Your task to perform on an android device: Go to Reddit.com Image 0: 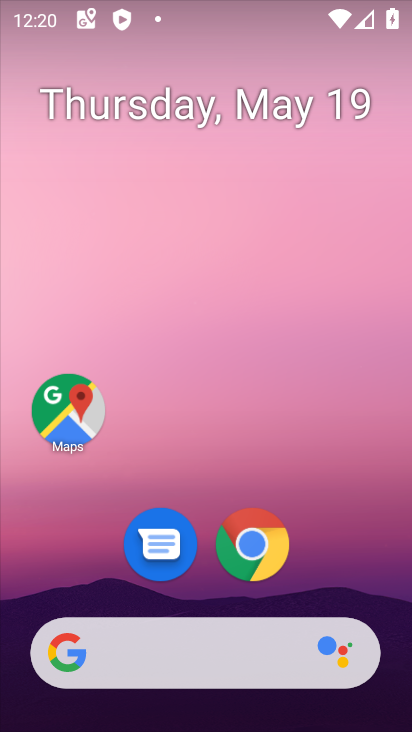
Step 0: drag from (302, 647) to (331, 92)
Your task to perform on an android device: Go to Reddit.com Image 1: 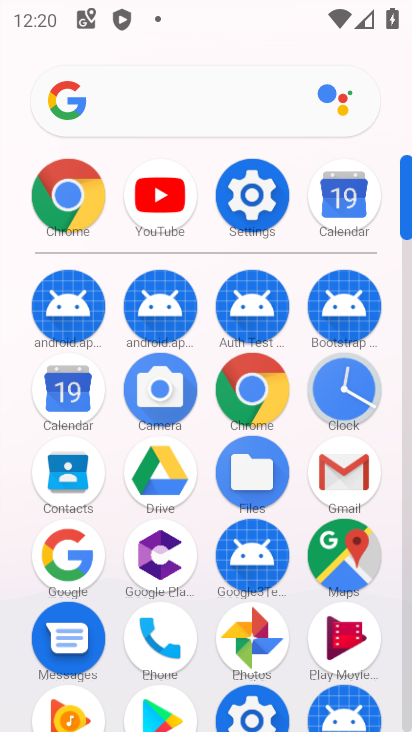
Step 1: click (251, 386)
Your task to perform on an android device: Go to Reddit.com Image 2: 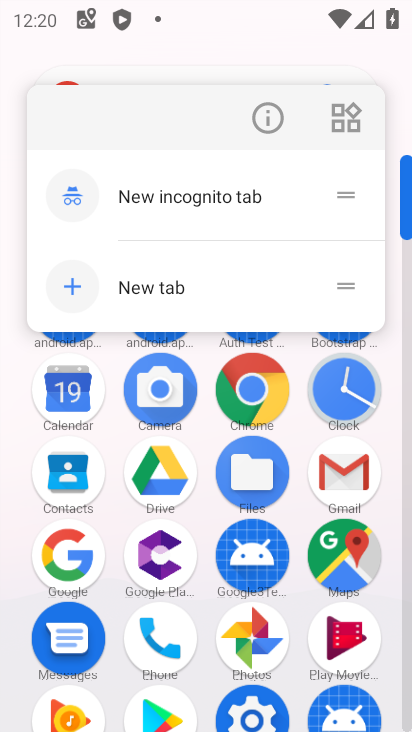
Step 2: click (268, 387)
Your task to perform on an android device: Go to Reddit.com Image 3: 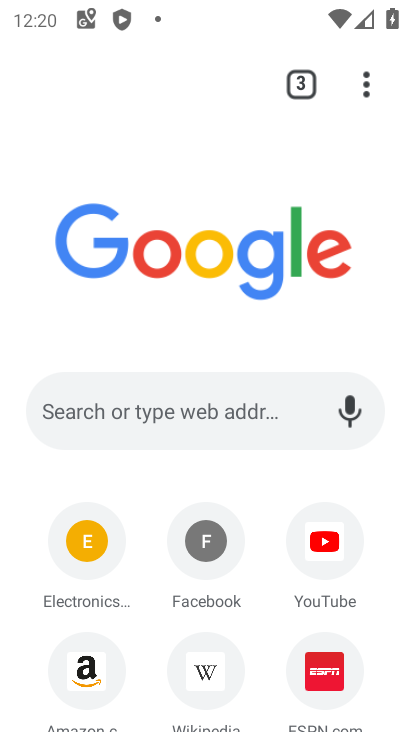
Step 3: drag from (373, 642) to (408, 337)
Your task to perform on an android device: Go to Reddit.com Image 4: 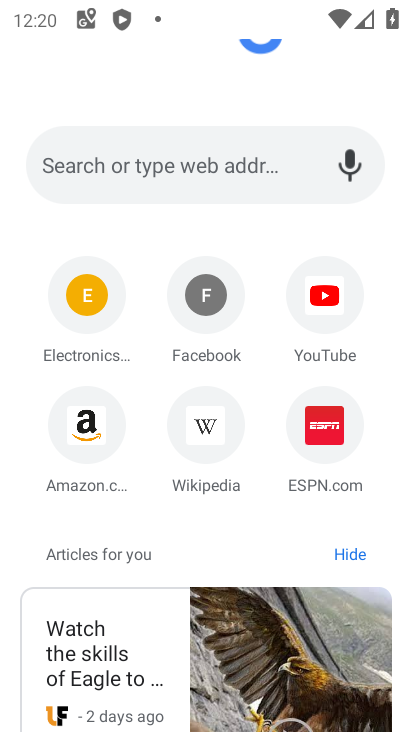
Step 4: click (265, 321)
Your task to perform on an android device: Go to Reddit.com Image 5: 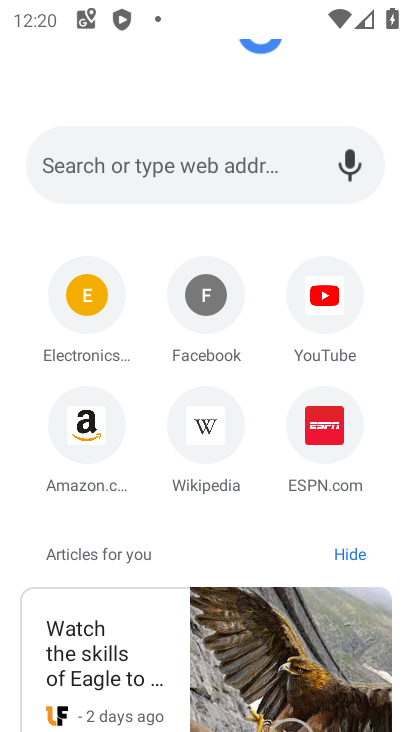
Step 5: click (191, 156)
Your task to perform on an android device: Go to Reddit.com Image 6: 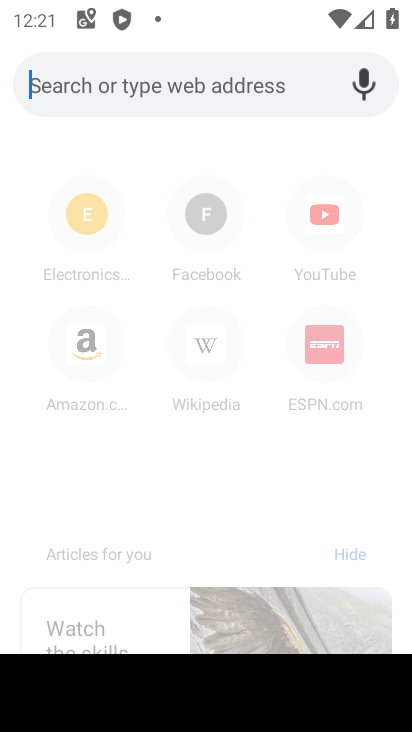
Step 6: type "reddit.com"
Your task to perform on an android device: Go to Reddit.com Image 7: 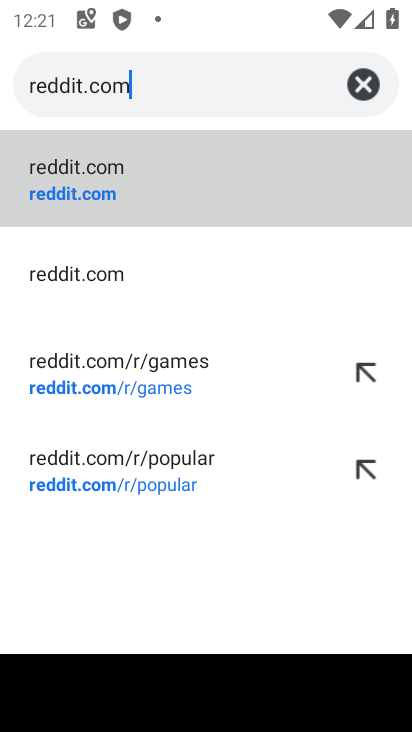
Step 7: click (268, 196)
Your task to perform on an android device: Go to Reddit.com Image 8: 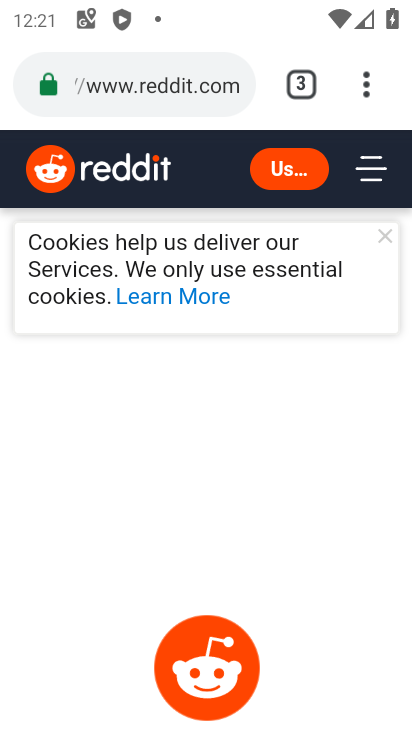
Step 8: task complete